Your task to perform on an android device: toggle wifi Image 0: 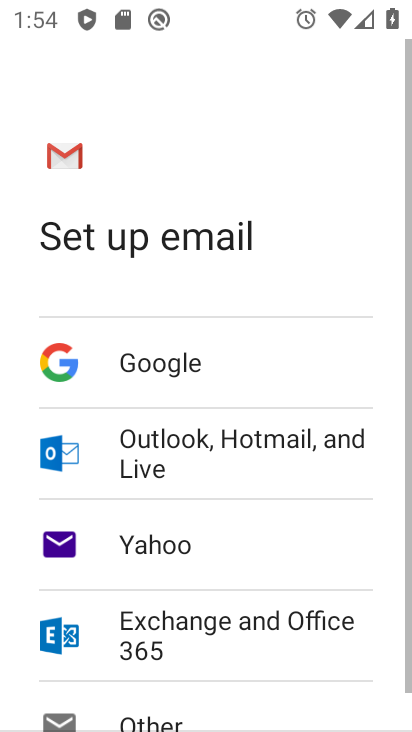
Step 0: press back button
Your task to perform on an android device: toggle wifi Image 1: 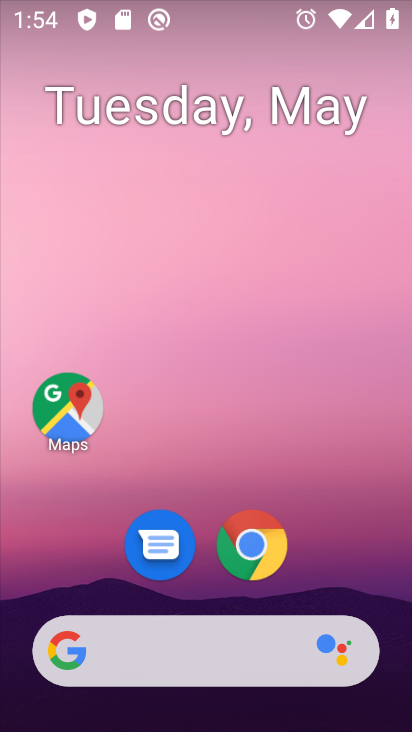
Step 1: drag from (334, 582) to (233, 52)
Your task to perform on an android device: toggle wifi Image 2: 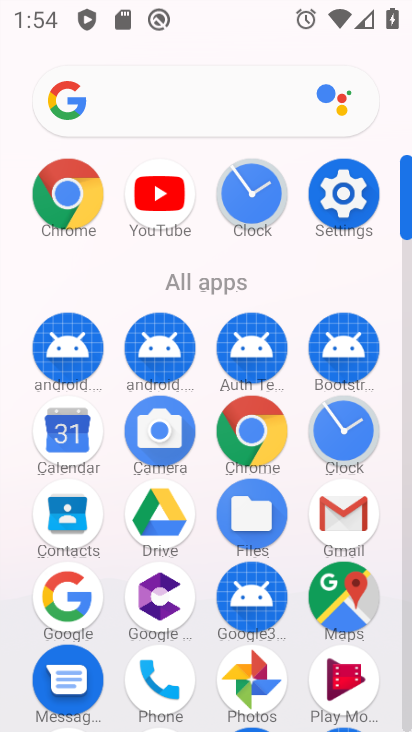
Step 2: click (345, 187)
Your task to perform on an android device: toggle wifi Image 3: 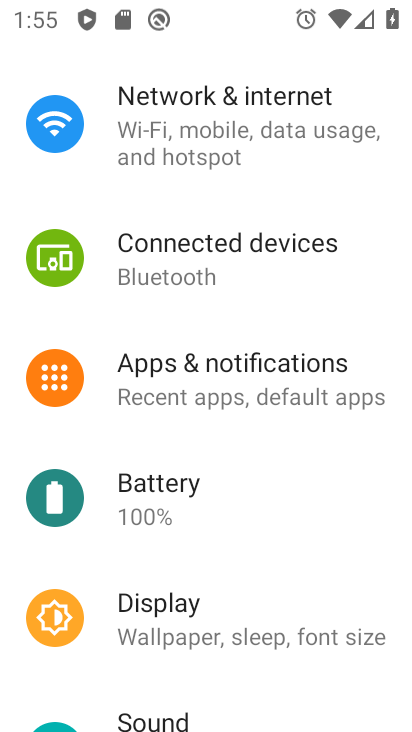
Step 3: drag from (282, 139) to (301, 540)
Your task to perform on an android device: toggle wifi Image 4: 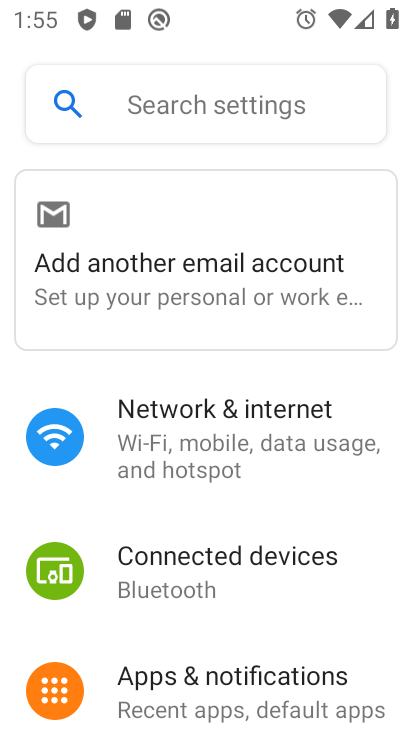
Step 4: click (202, 437)
Your task to perform on an android device: toggle wifi Image 5: 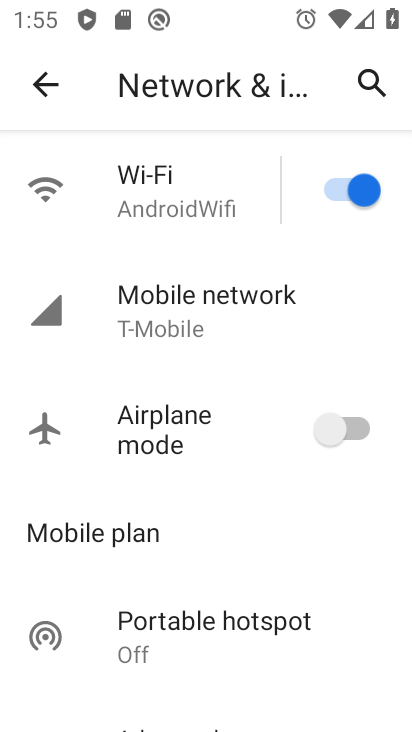
Step 5: click (348, 185)
Your task to perform on an android device: toggle wifi Image 6: 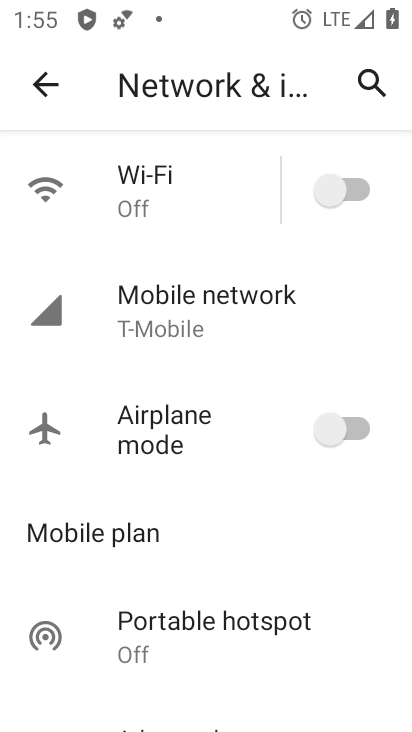
Step 6: task complete